Your task to perform on an android device: Check the weather Image 0: 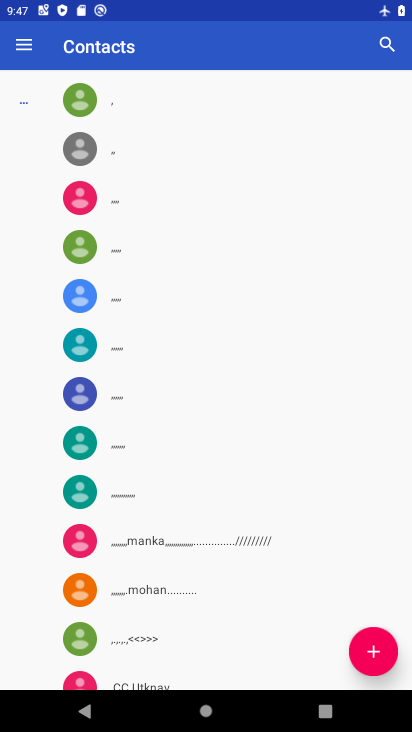
Step 0: press home button
Your task to perform on an android device: Check the weather Image 1: 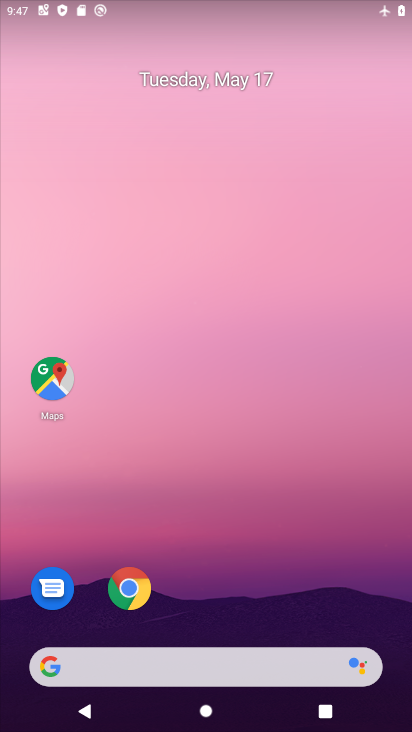
Step 1: drag from (221, 657) to (194, 62)
Your task to perform on an android device: Check the weather Image 2: 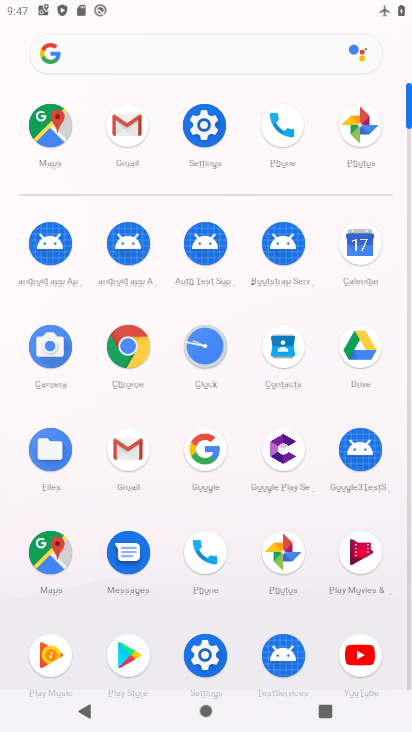
Step 2: click (211, 446)
Your task to perform on an android device: Check the weather Image 3: 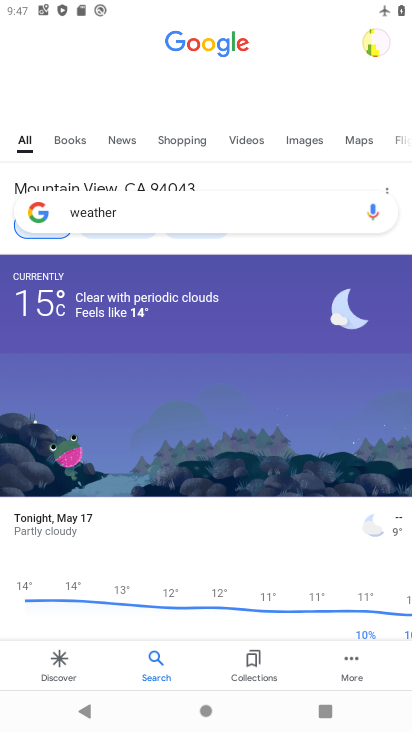
Step 3: task complete